Your task to perform on an android device: change text size in settings app Image 0: 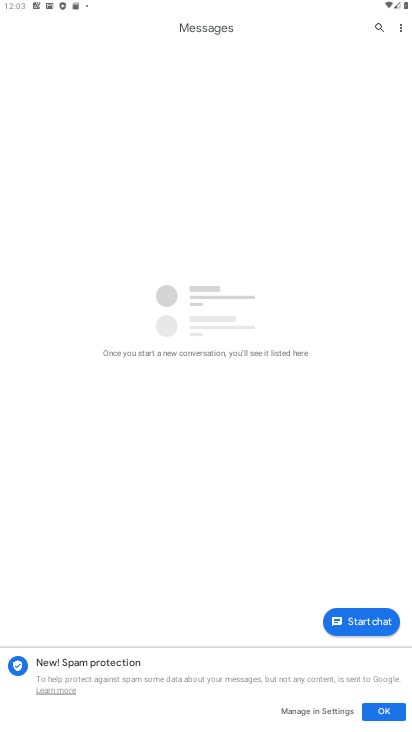
Step 0: press home button
Your task to perform on an android device: change text size in settings app Image 1: 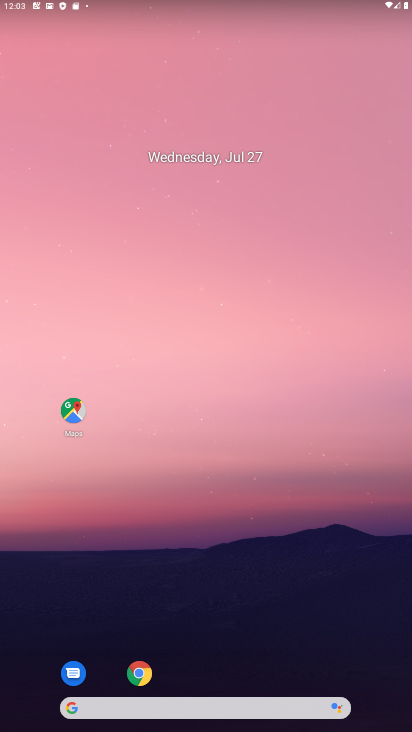
Step 1: drag from (180, 667) to (162, 220)
Your task to perform on an android device: change text size in settings app Image 2: 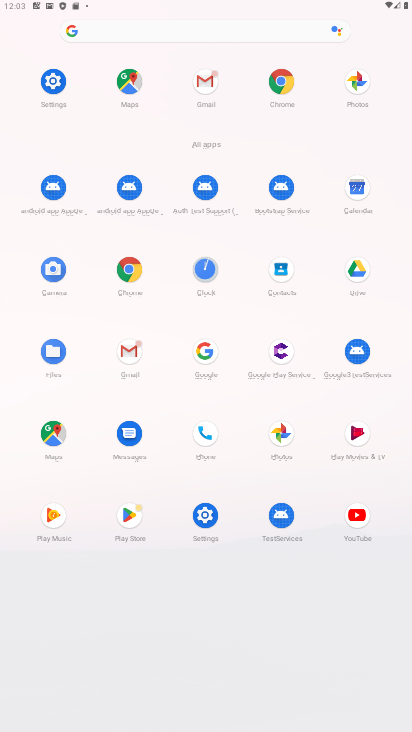
Step 2: click (43, 66)
Your task to perform on an android device: change text size in settings app Image 3: 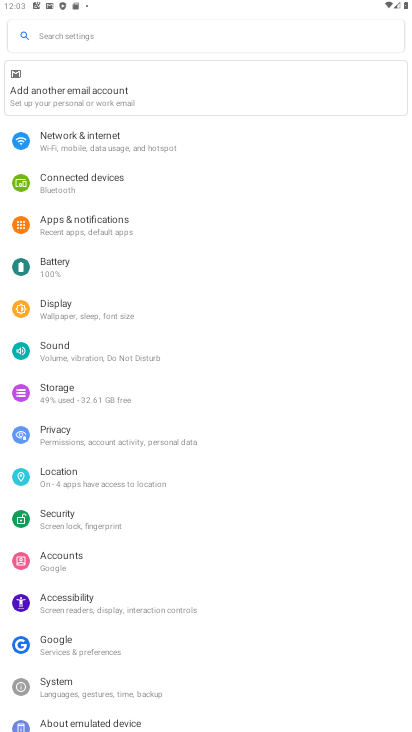
Step 3: click (73, 599)
Your task to perform on an android device: change text size in settings app Image 4: 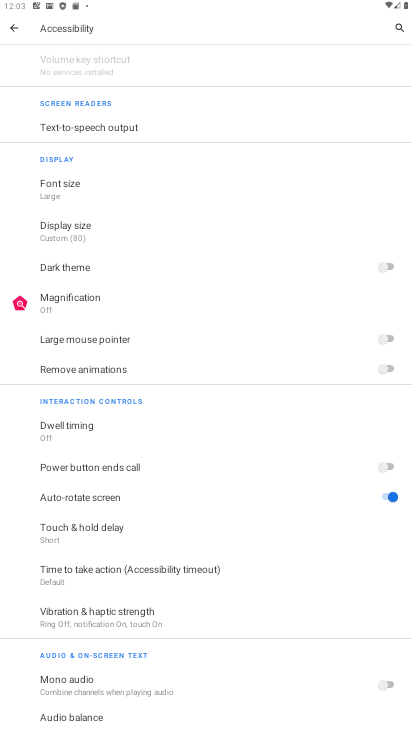
Step 4: click (64, 182)
Your task to perform on an android device: change text size in settings app Image 5: 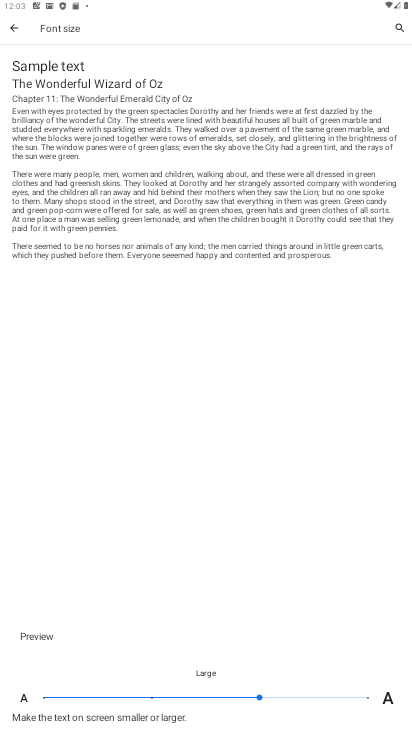
Step 5: click (356, 694)
Your task to perform on an android device: change text size in settings app Image 6: 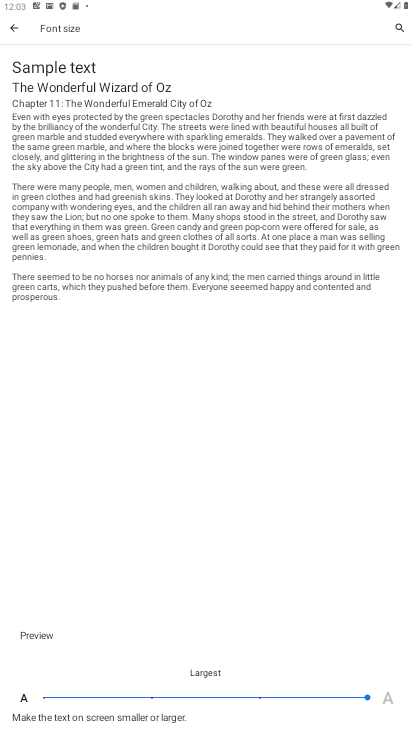
Step 6: click (390, 701)
Your task to perform on an android device: change text size in settings app Image 7: 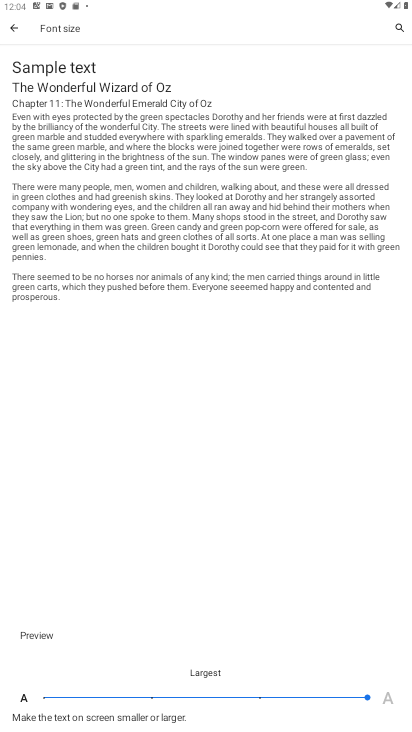
Step 7: task complete